Your task to perform on an android device: turn off data saver in the chrome app Image 0: 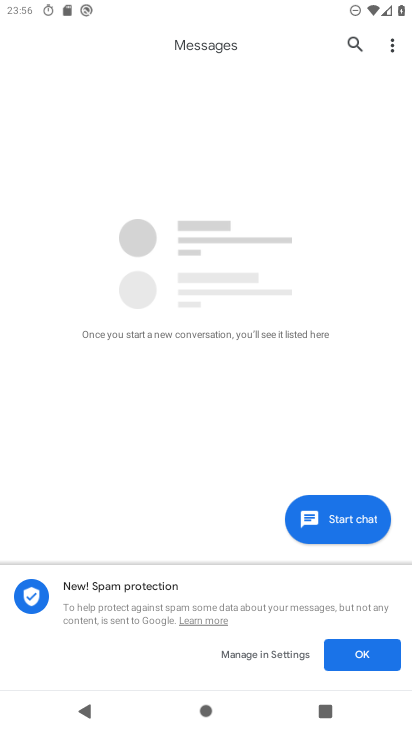
Step 0: press home button
Your task to perform on an android device: turn off data saver in the chrome app Image 1: 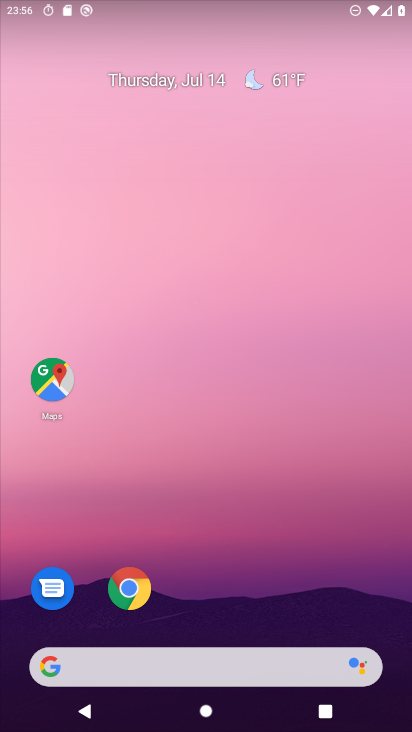
Step 1: click (129, 599)
Your task to perform on an android device: turn off data saver in the chrome app Image 2: 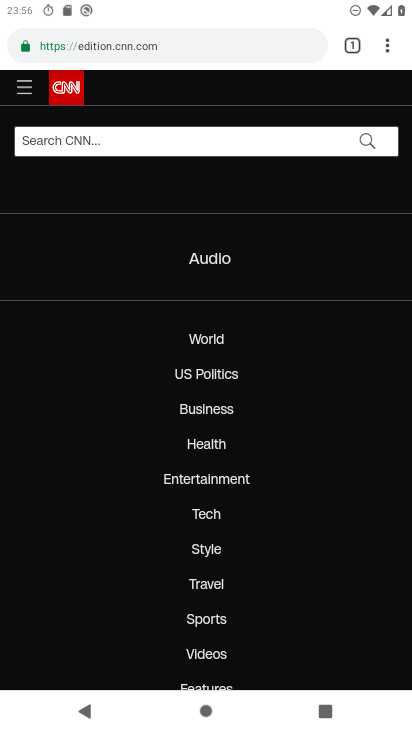
Step 2: click (395, 44)
Your task to perform on an android device: turn off data saver in the chrome app Image 3: 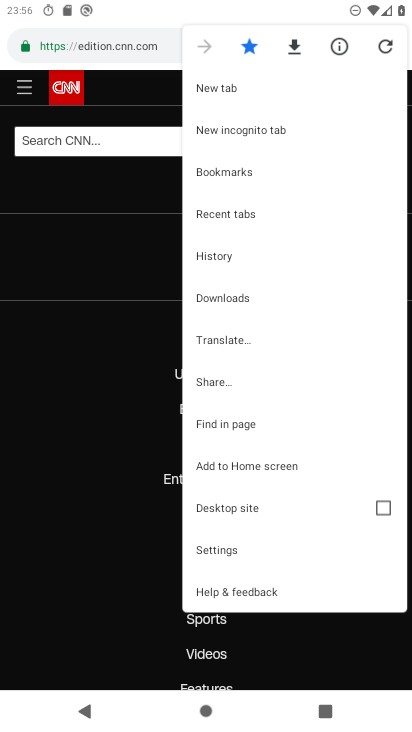
Step 3: click (231, 556)
Your task to perform on an android device: turn off data saver in the chrome app Image 4: 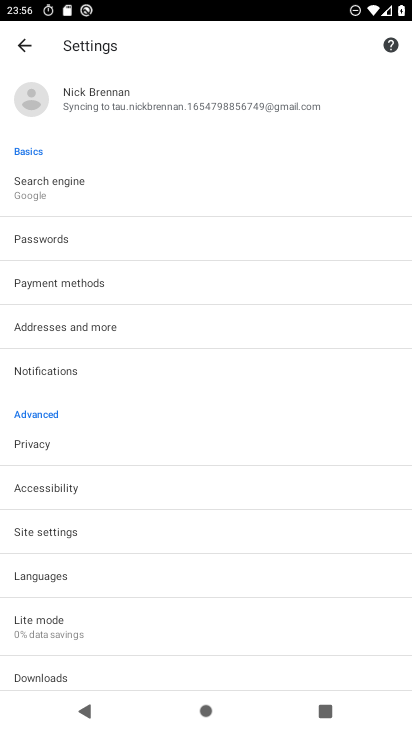
Step 4: click (47, 636)
Your task to perform on an android device: turn off data saver in the chrome app Image 5: 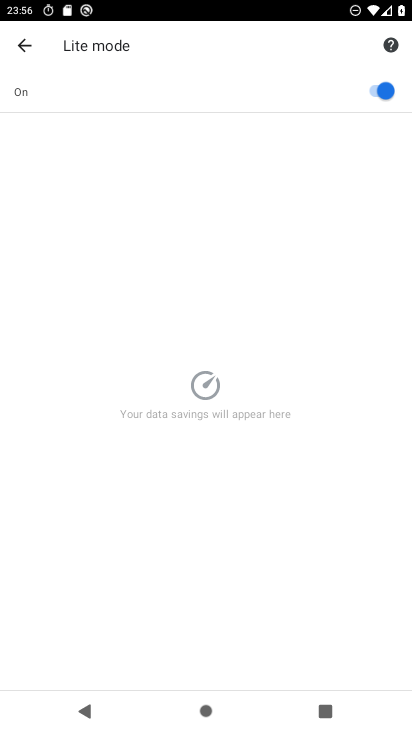
Step 5: click (352, 93)
Your task to perform on an android device: turn off data saver in the chrome app Image 6: 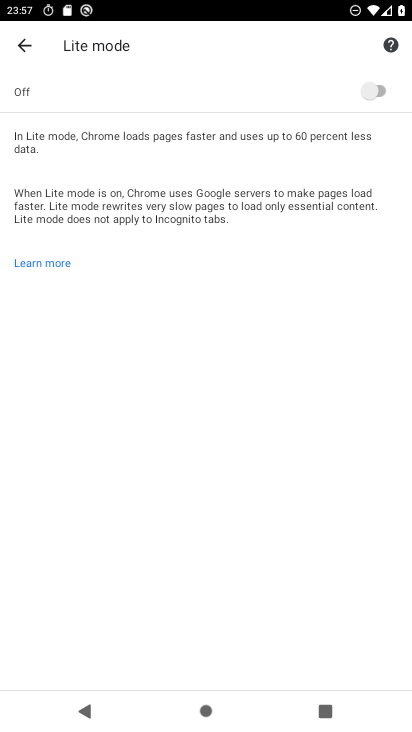
Step 6: task complete